Your task to perform on an android device: Open Yahoo.com Image 0: 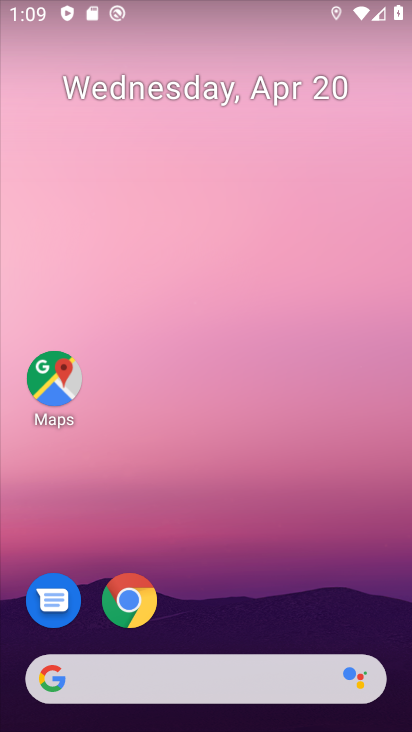
Step 0: click (123, 601)
Your task to perform on an android device: Open Yahoo.com Image 1: 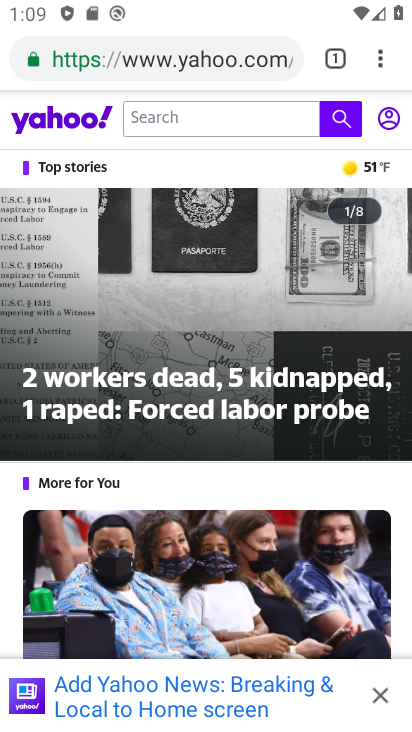
Step 1: task complete